Your task to perform on an android device: set the timer Image 0: 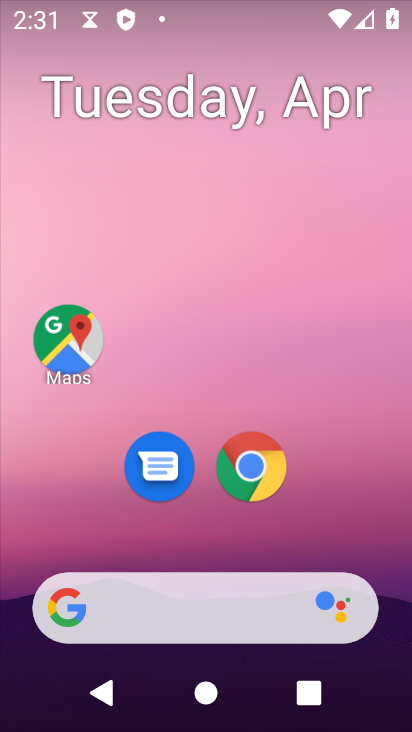
Step 0: drag from (365, 484) to (226, 16)
Your task to perform on an android device: set the timer Image 1: 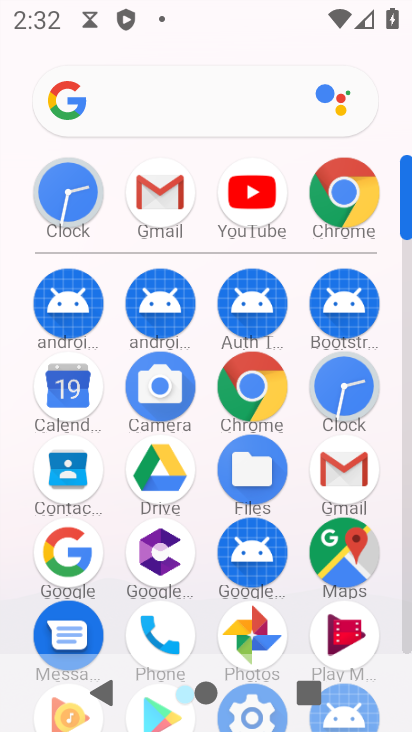
Step 1: click (66, 189)
Your task to perform on an android device: set the timer Image 2: 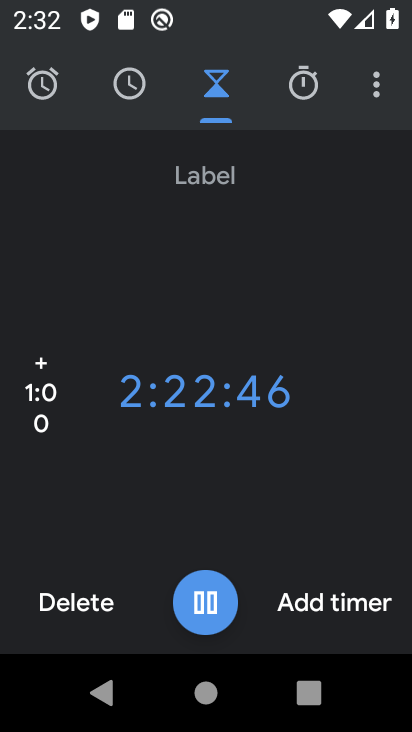
Step 2: click (337, 609)
Your task to perform on an android device: set the timer Image 3: 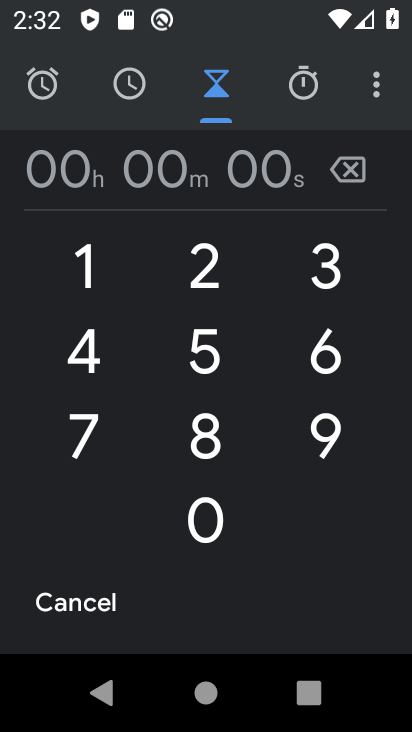
Step 3: click (205, 358)
Your task to perform on an android device: set the timer Image 4: 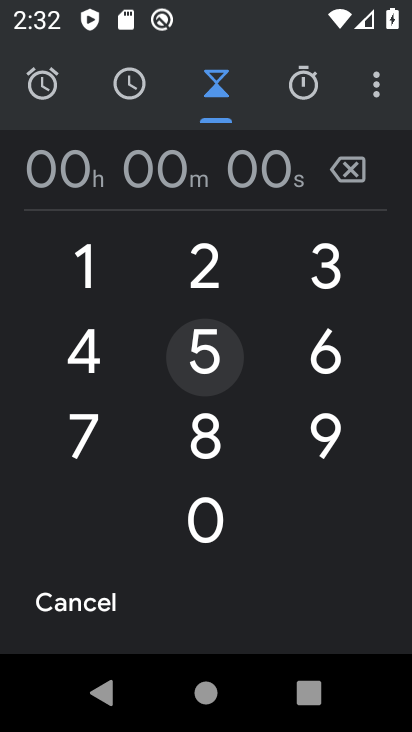
Step 4: click (93, 351)
Your task to perform on an android device: set the timer Image 5: 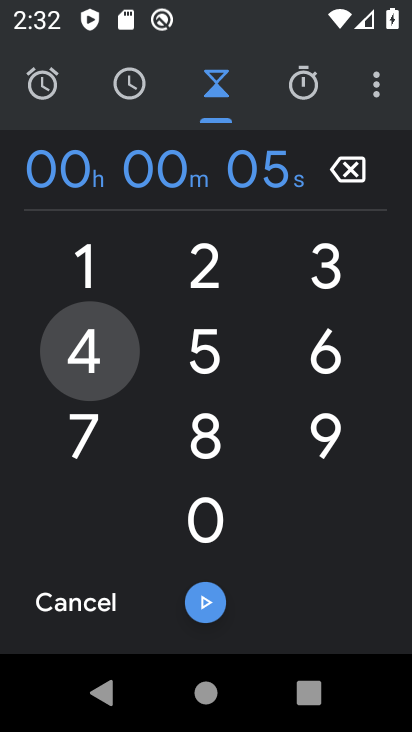
Step 5: click (189, 254)
Your task to perform on an android device: set the timer Image 6: 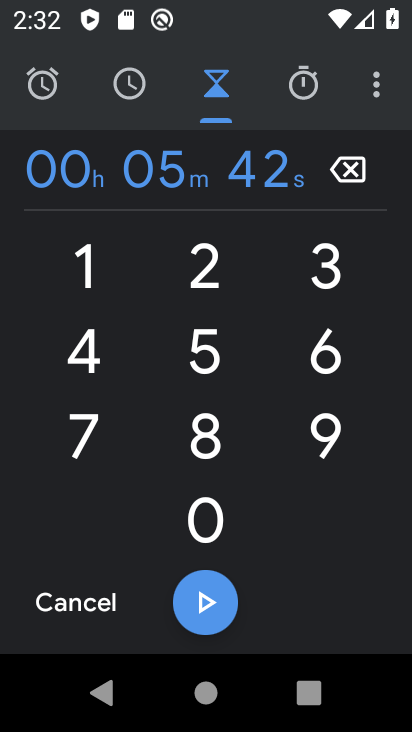
Step 6: click (217, 588)
Your task to perform on an android device: set the timer Image 7: 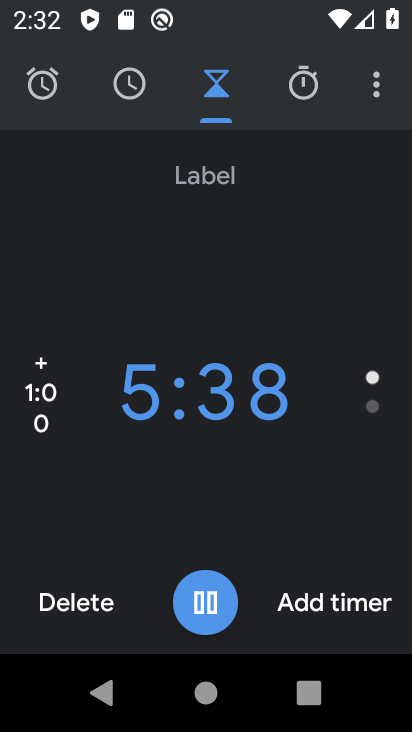
Step 7: task complete